Your task to perform on an android device: turn off data saver in the chrome app Image 0: 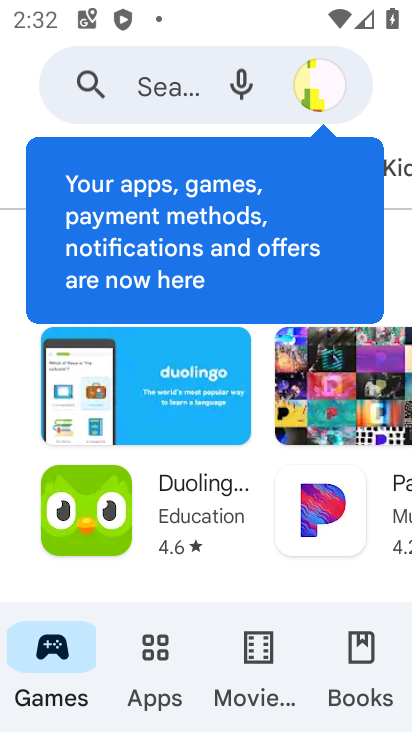
Step 0: press home button
Your task to perform on an android device: turn off data saver in the chrome app Image 1: 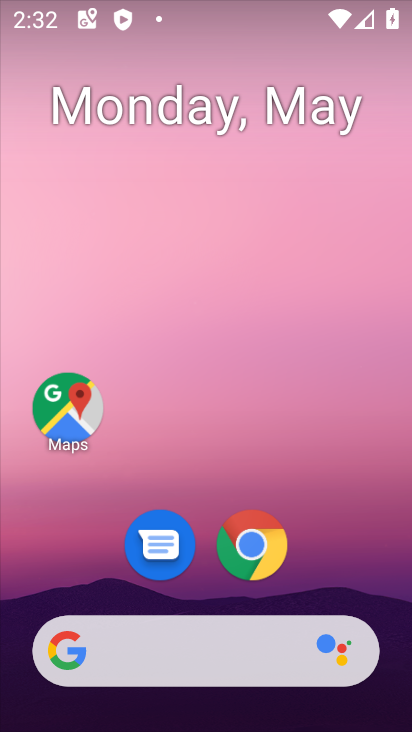
Step 1: drag from (261, 701) to (255, 186)
Your task to perform on an android device: turn off data saver in the chrome app Image 2: 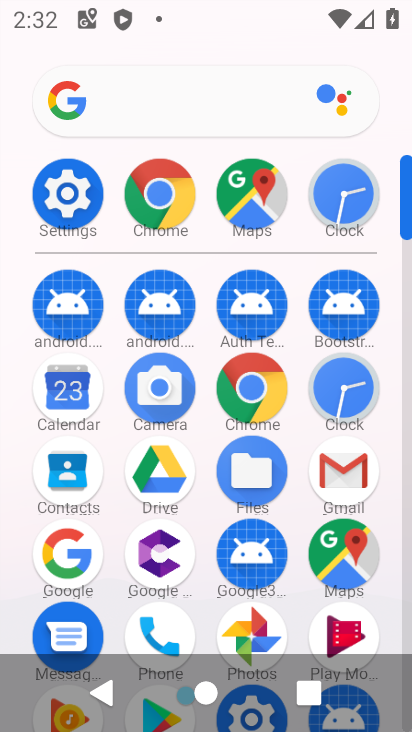
Step 2: click (156, 202)
Your task to perform on an android device: turn off data saver in the chrome app Image 3: 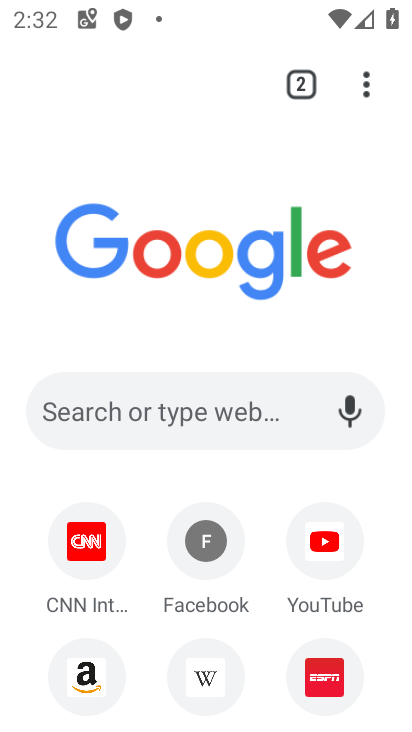
Step 3: click (373, 81)
Your task to perform on an android device: turn off data saver in the chrome app Image 4: 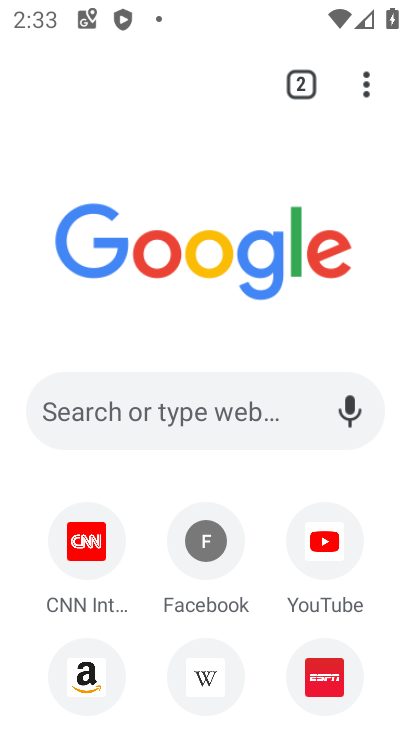
Step 4: click (366, 74)
Your task to perform on an android device: turn off data saver in the chrome app Image 5: 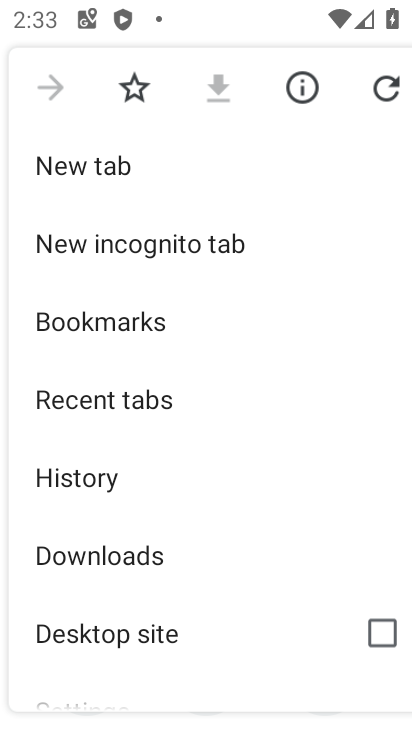
Step 5: drag from (234, 572) to (264, 283)
Your task to perform on an android device: turn off data saver in the chrome app Image 6: 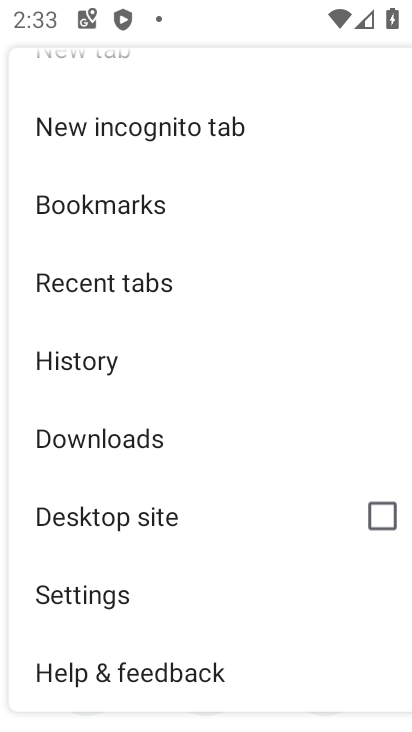
Step 6: click (97, 589)
Your task to perform on an android device: turn off data saver in the chrome app Image 7: 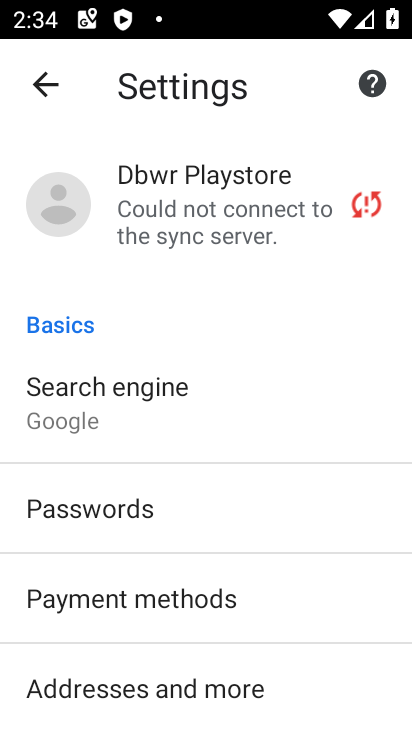
Step 7: drag from (242, 574) to (235, 23)
Your task to perform on an android device: turn off data saver in the chrome app Image 8: 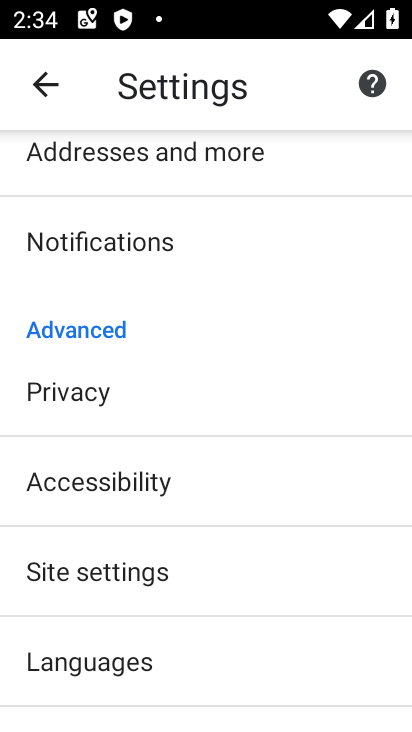
Step 8: drag from (216, 597) to (280, 209)
Your task to perform on an android device: turn off data saver in the chrome app Image 9: 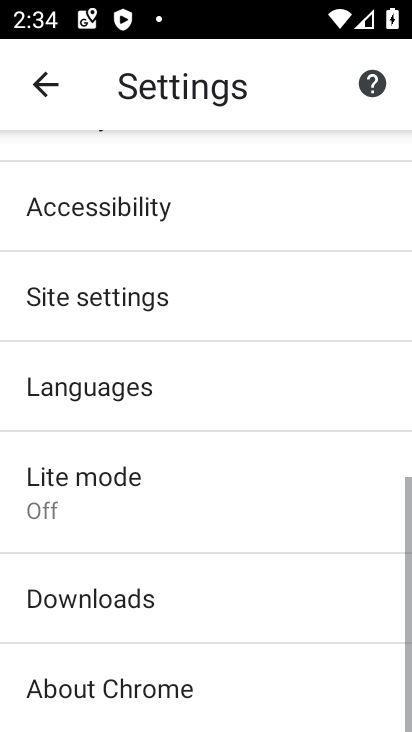
Step 9: click (130, 480)
Your task to perform on an android device: turn off data saver in the chrome app Image 10: 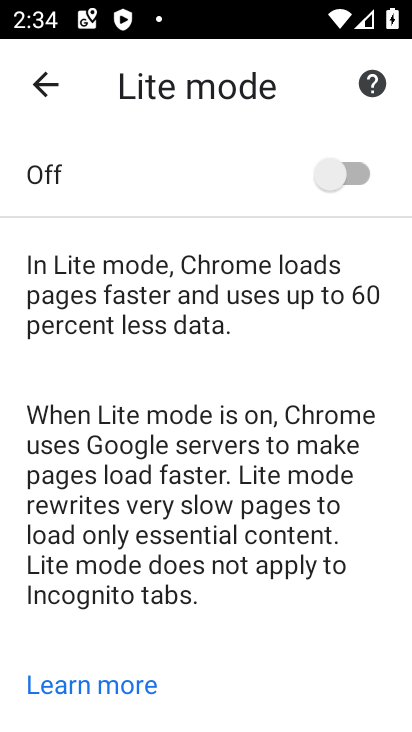
Step 10: task complete